Your task to perform on an android device: change the clock display to analog Image 0: 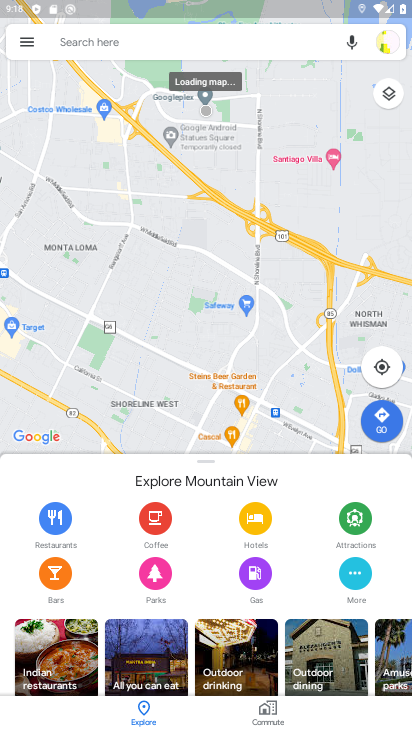
Step 0: press home button
Your task to perform on an android device: change the clock display to analog Image 1: 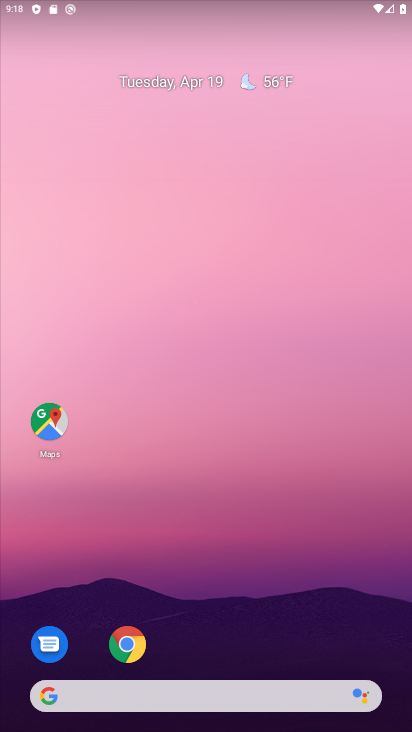
Step 1: drag from (208, 383) to (210, 118)
Your task to perform on an android device: change the clock display to analog Image 2: 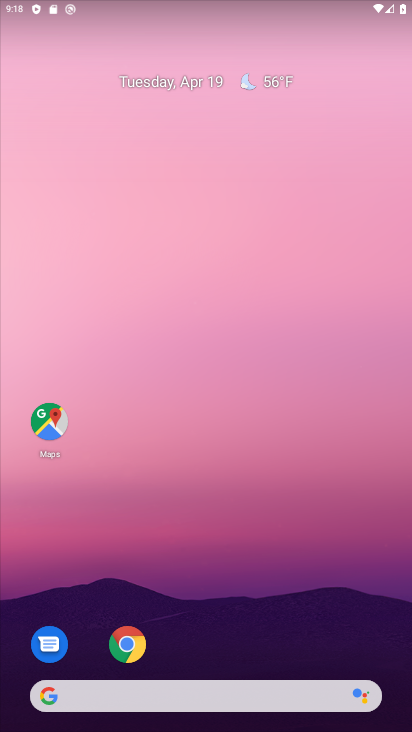
Step 2: drag from (224, 648) to (229, 157)
Your task to perform on an android device: change the clock display to analog Image 3: 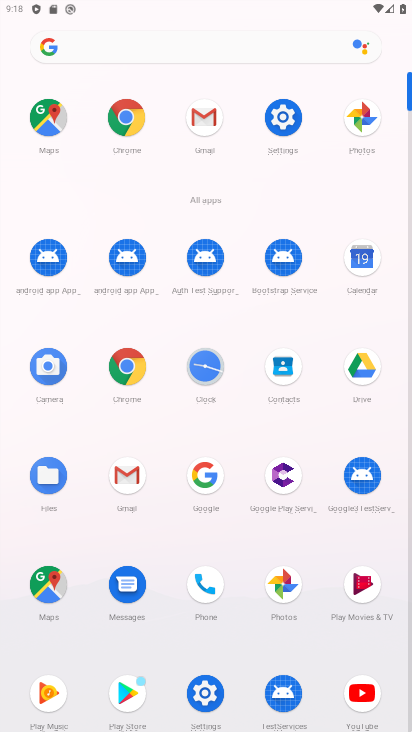
Step 3: click (211, 364)
Your task to perform on an android device: change the clock display to analog Image 4: 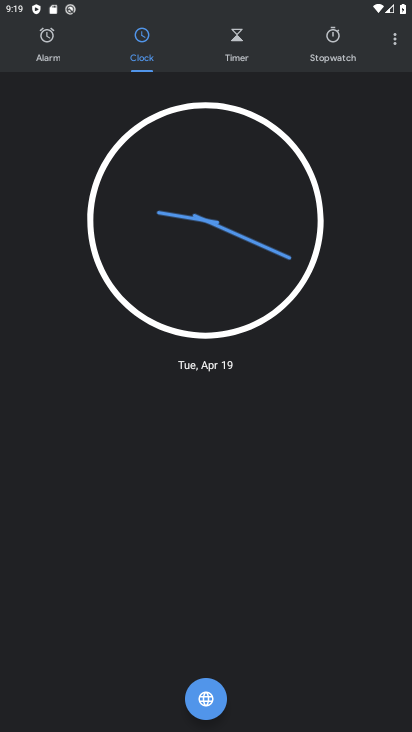
Step 4: click (393, 45)
Your task to perform on an android device: change the clock display to analog Image 5: 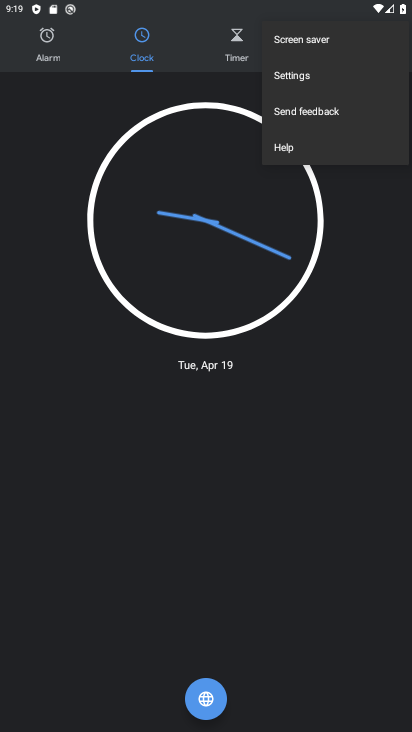
Step 5: click (290, 67)
Your task to perform on an android device: change the clock display to analog Image 6: 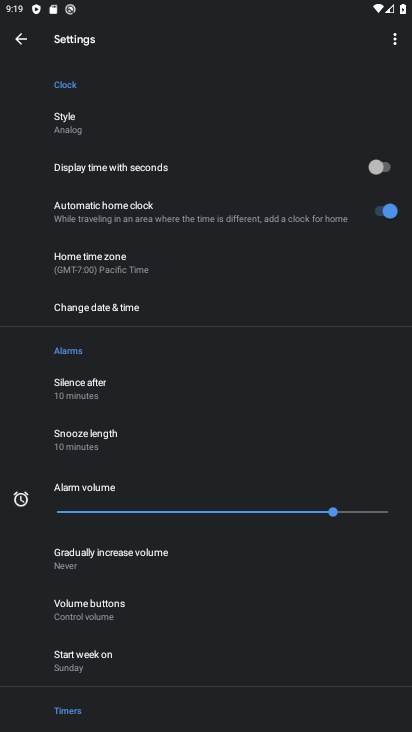
Step 6: task complete